Your task to perform on an android device: Open Youtube and go to "Your channel" Image 0: 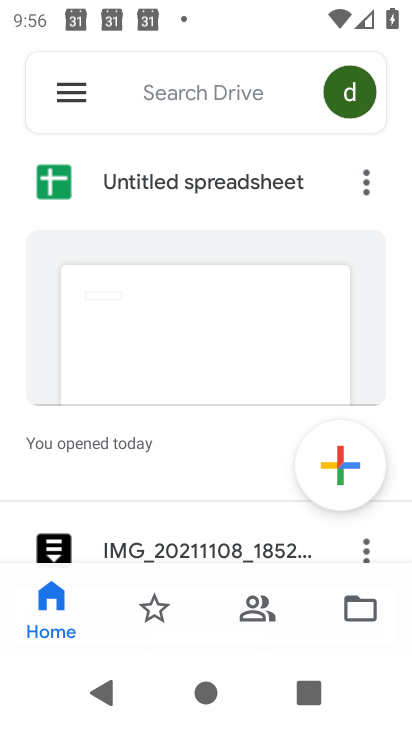
Step 0: press home button
Your task to perform on an android device: Open Youtube and go to "Your channel" Image 1: 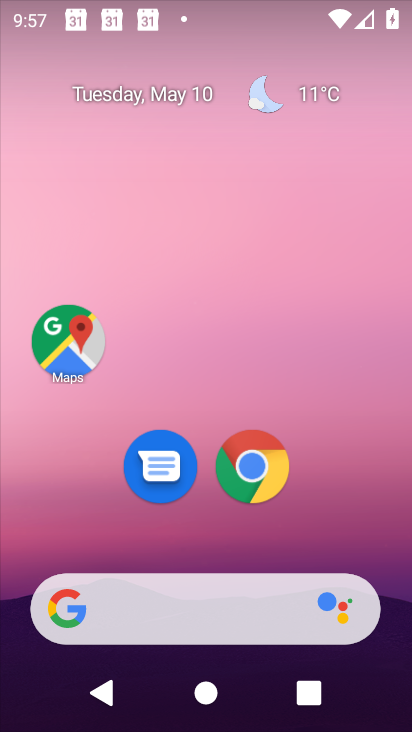
Step 1: drag from (327, 494) to (292, 115)
Your task to perform on an android device: Open Youtube and go to "Your channel" Image 2: 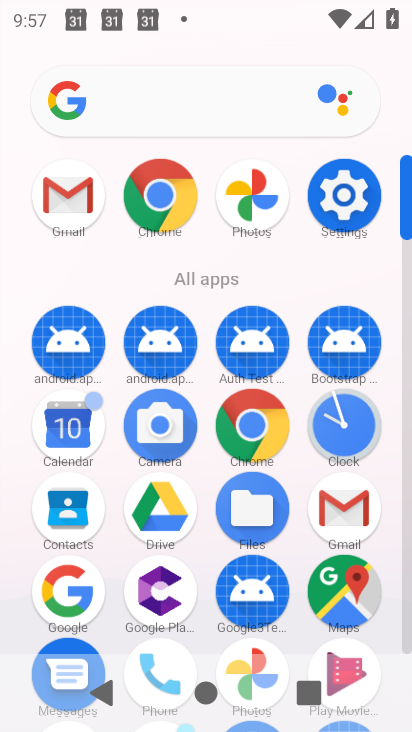
Step 2: drag from (282, 501) to (335, 44)
Your task to perform on an android device: Open Youtube and go to "Your channel" Image 3: 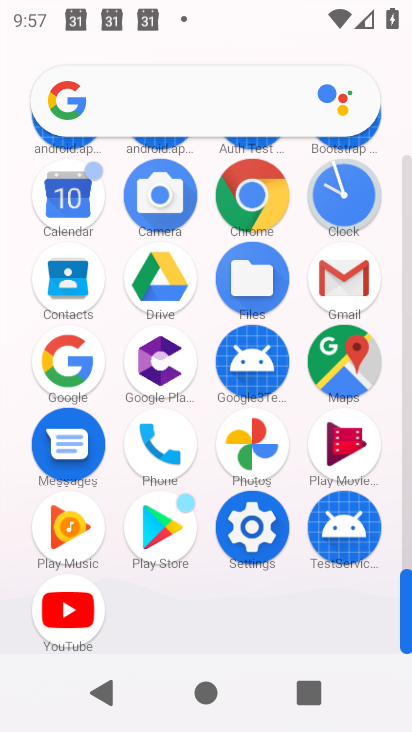
Step 3: click (72, 615)
Your task to perform on an android device: Open Youtube and go to "Your channel" Image 4: 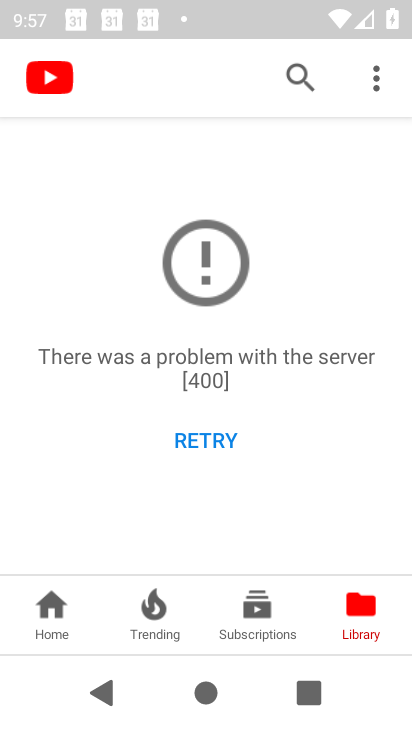
Step 4: task complete